Your task to perform on an android device: turn on improve location accuracy Image 0: 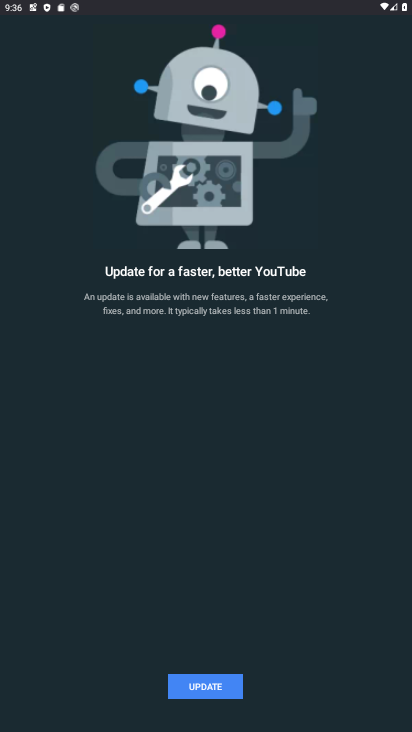
Step 0: press home button
Your task to perform on an android device: turn on improve location accuracy Image 1: 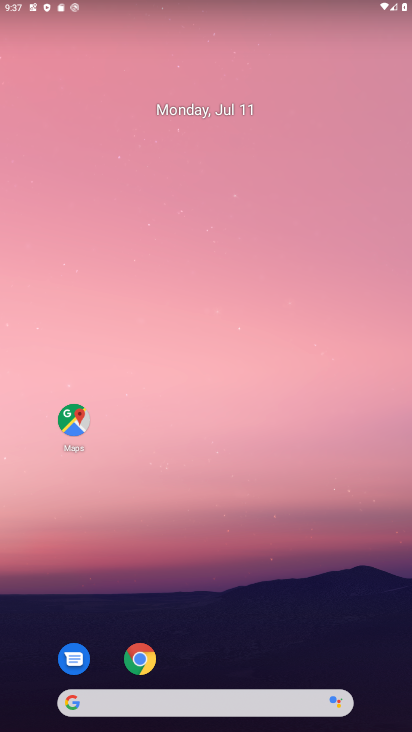
Step 1: drag from (239, 611) to (161, 7)
Your task to perform on an android device: turn on improve location accuracy Image 2: 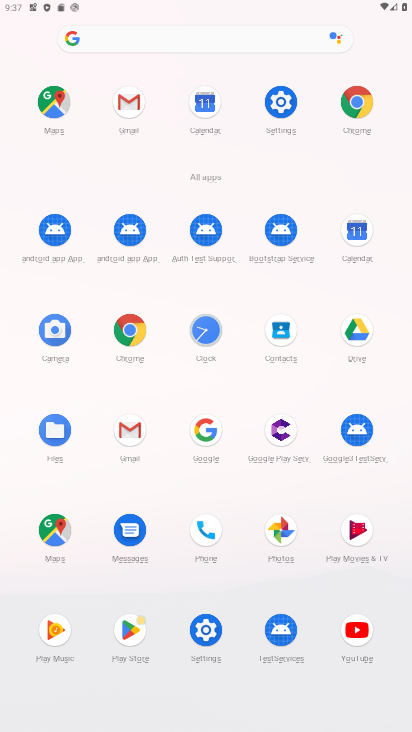
Step 2: click (264, 115)
Your task to perform on an android device: turn on improve location accuracy Image 3: 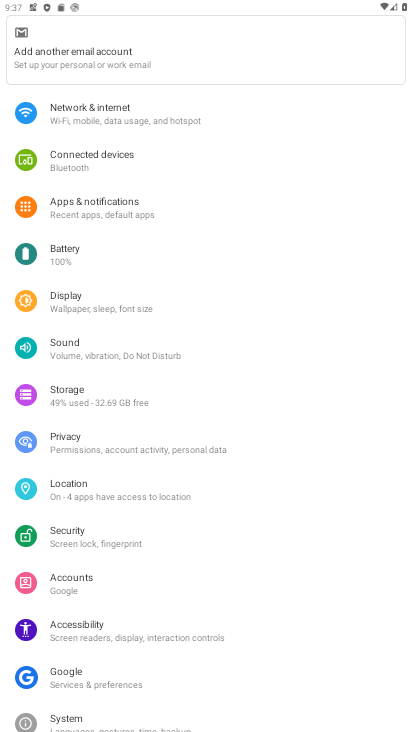
Step 3: click (67, 477)
Your task to perform on an android device: turn on improve location accuracy Image 4: 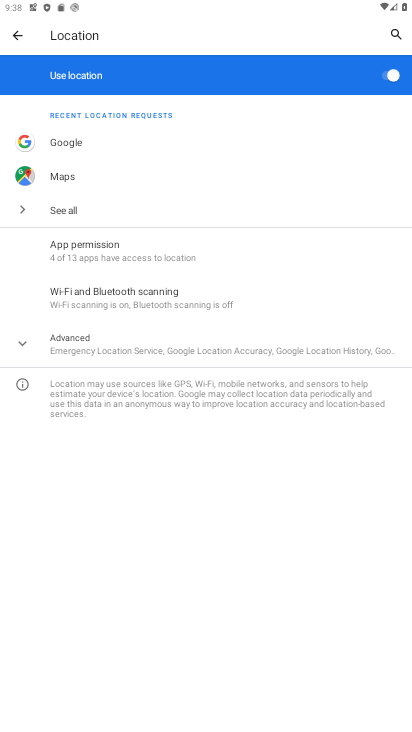
Step 4: click (134, 354)
Your task to perform on an android device: turn on improve location accuracy Image 5: 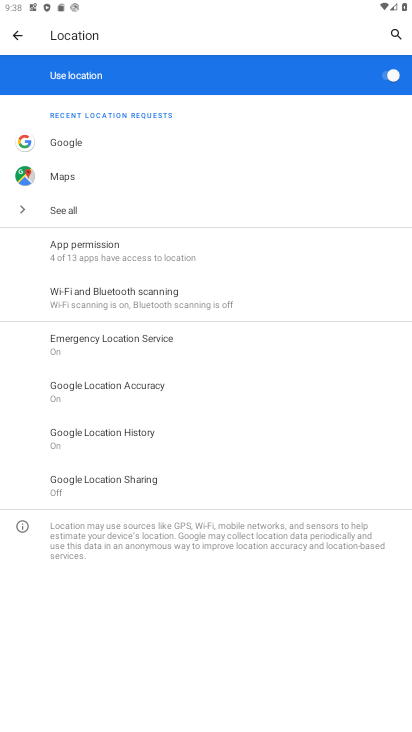
Step 5: click (139, 386)
Your task to perform on an android device: turn on improve location accuracy Image 6: 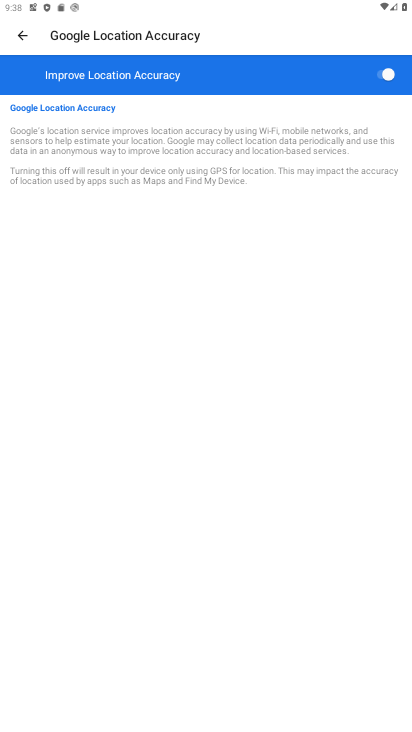
Step 6: task complete